Your task to perform on an android device: create a new album in the google photos Image 0: 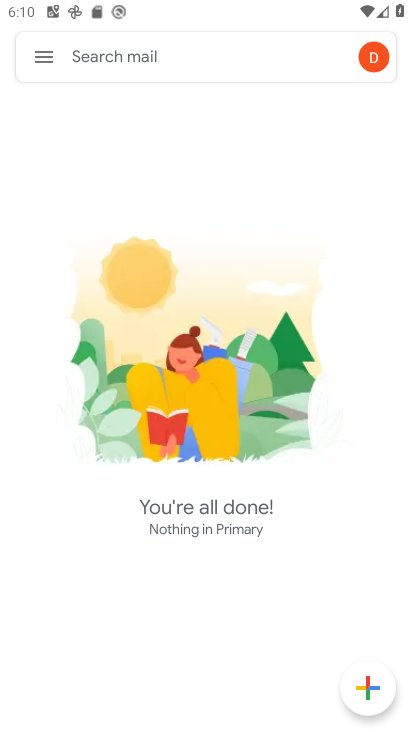
Step 0: press home button
Your task to perform on an android device: create a new album in the google photos Image 1: 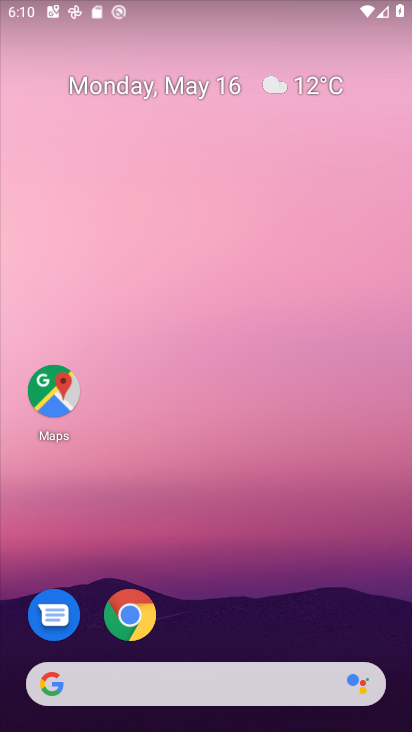
Step 1: drag from (196, 588) to (267, 293)
Your task to perform on an android device: create a new album in the google photos Image 2: 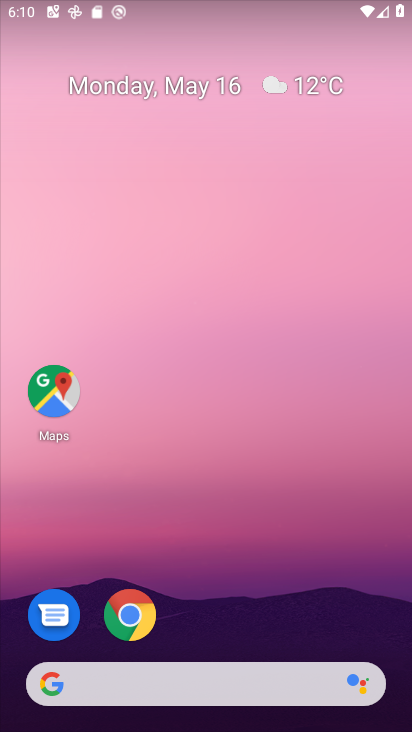
Step 2: drag from (177, 545) to (295, 89)
Your task to perform on an android device: create a new album in the google photos Image 3: 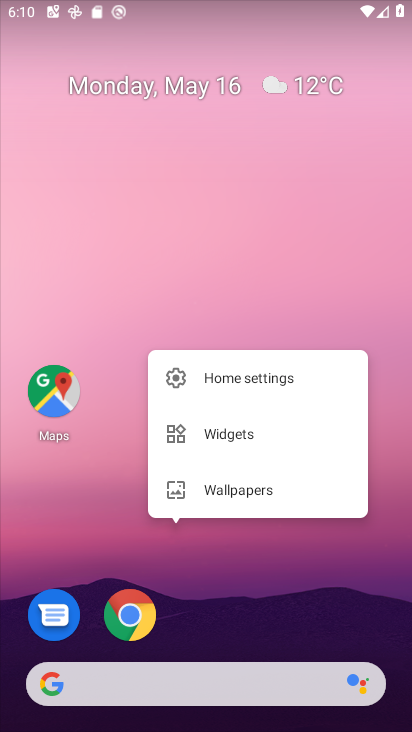
Step 3: drag from (145, 333) to (176, 140)
Your task to perform on an android device: create a new album in the google photos Image 4: 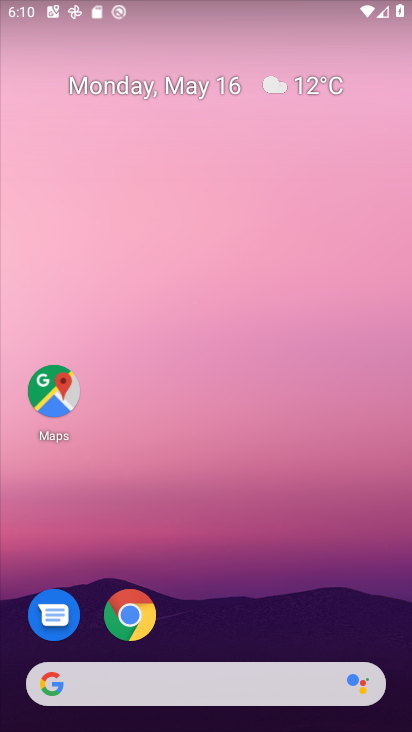
Step 4: drag from (224, 374) to (228, 212)
Your task to perform on an android device: create a new album in the google photos Image 5: 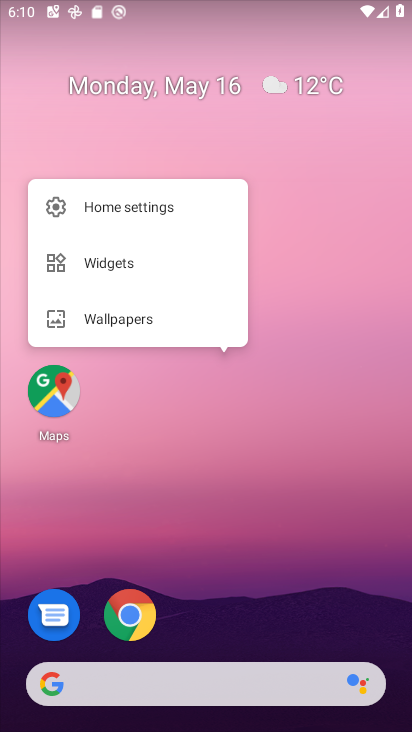
Step 5: drag from (245, 602) to (246, 218)
Your task to perform on an android device: create a new album in the google photos Image 6: 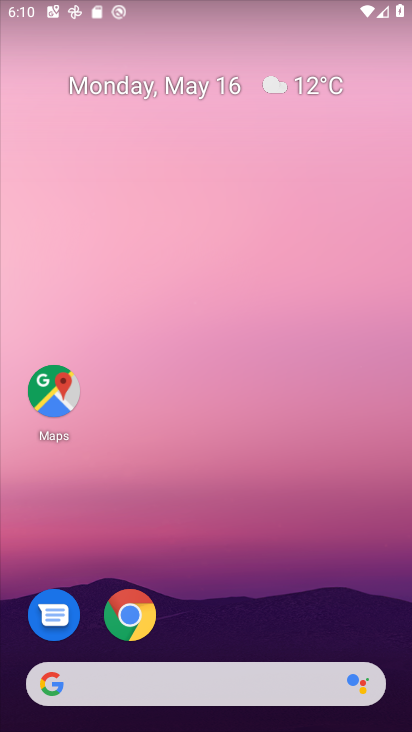
Step 6: drag from (192, 544) to (163, 198)
Your task to perform on an android device: create a new album in the google photos Image 7: 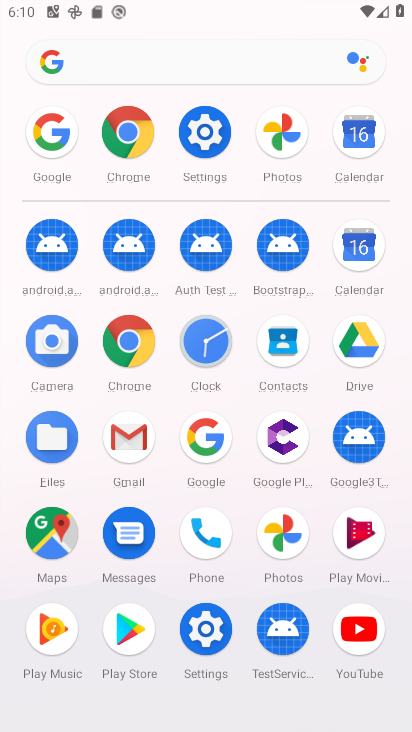
Step 7: click (277, 529)
Your task to perform on an android device: create a new album in the google photos Image 8: 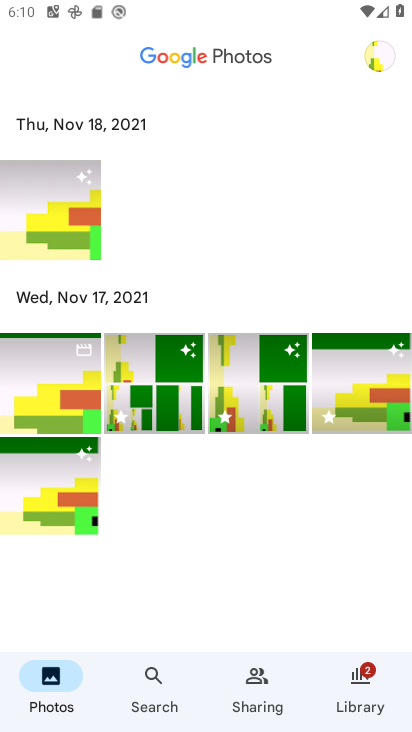
Step 8: click (357, 702)
Your task to perform on an android device: create a new album in the google photos Image 9: 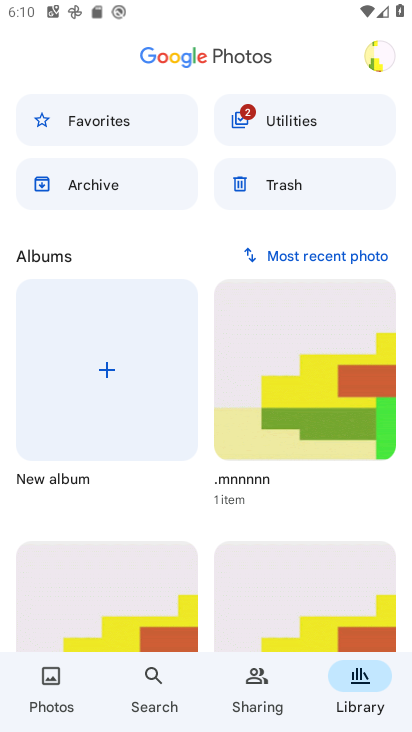
Step 9: click (101, 374)
Your task to perform on an android device: create a new album in the google photos Image 10: 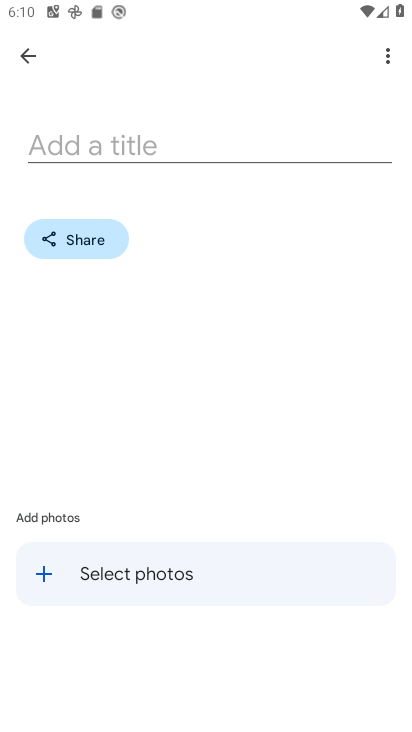
Step 10: click (150, 136)
Your task to perform on an android device: create a new album in the google photos Image 11: 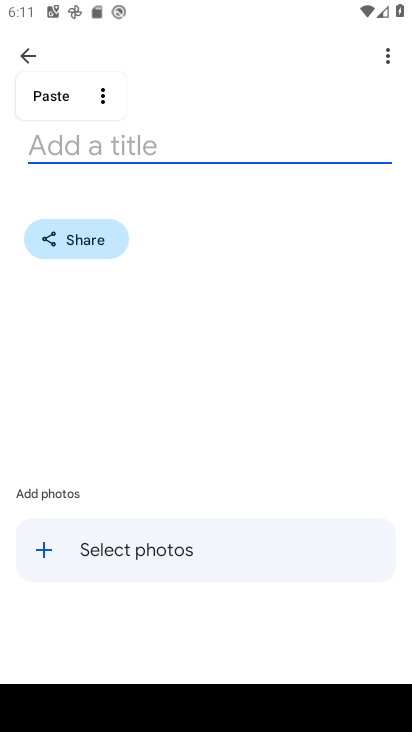
Step 11: type "ranjan"
Your task to perform on an android device: create a new album in the google photos Image 12: 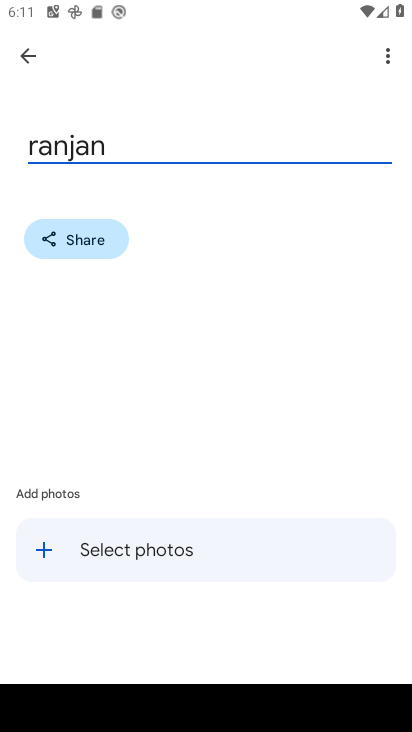
Step 12: click (86, 547)
Your task to perform on an android device: create a new album in the google photos Image 13: 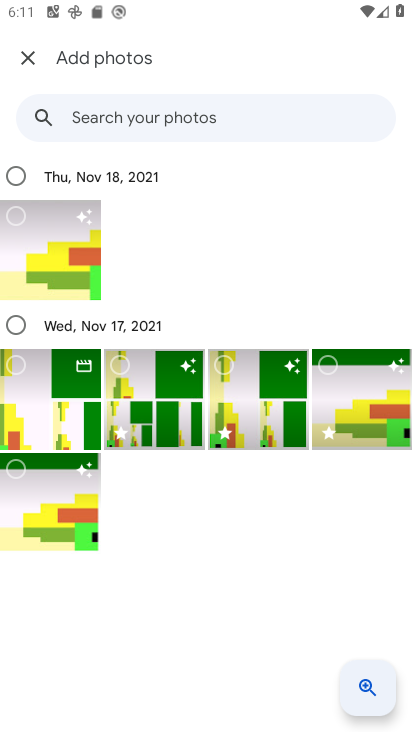
Step 13: click (12, 182)
Your task to perform on an android device: create a new album in the google photos Image 14: 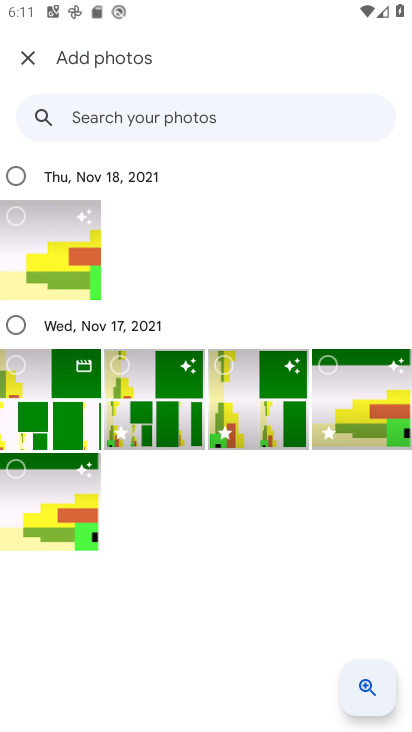
Step 14: click (12, 178)
Your task to perform on an android device: create a new album in the google photos Image 15: 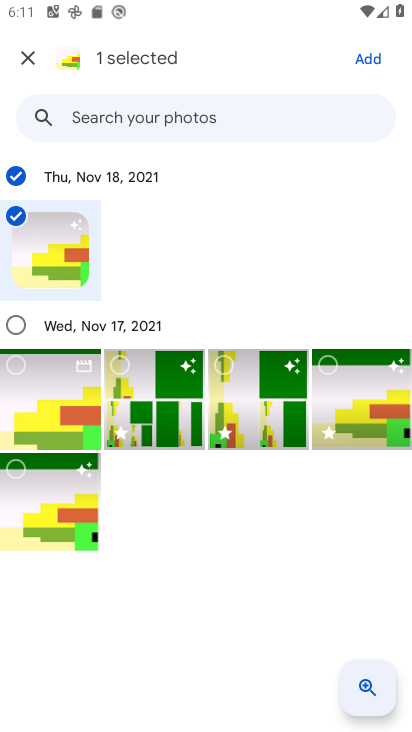
Step 15: click (361, 62)
Your task to perform on an android device: create a new album in the google photos Image 16: 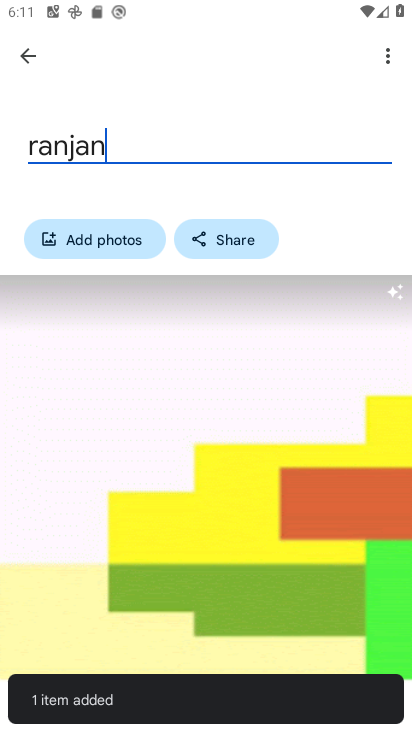
Step 16: task complete